Your task to perform on an android device: open app "Spotify" (install if not already installed) and go to login screen Image 0: 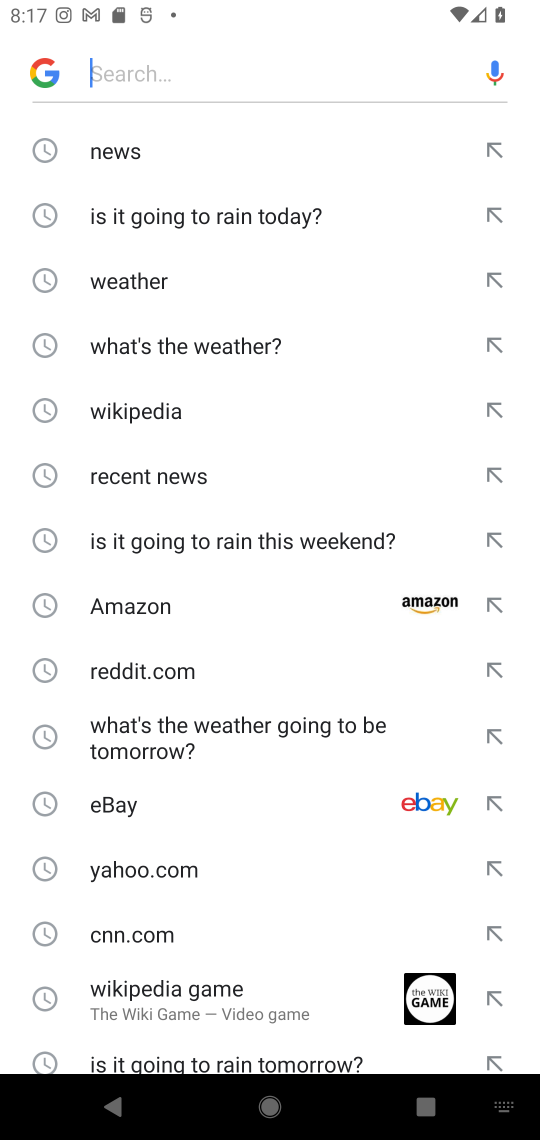
Step 0: press home button
Your task to perform on an android device: open app "Spotify" (install if not already installed) and go to login screen Image 1: 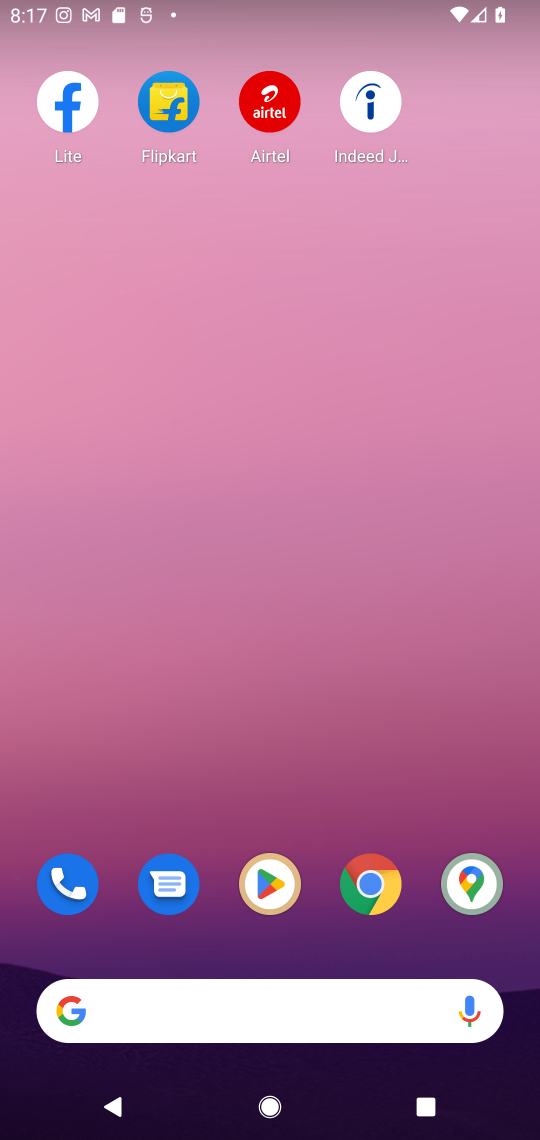
Step 1: drag from (159, 1003) to (238, 100)
Your task to perform on an android device: open app "Spotify" (install if not already installed) and go to login screen Image 2: 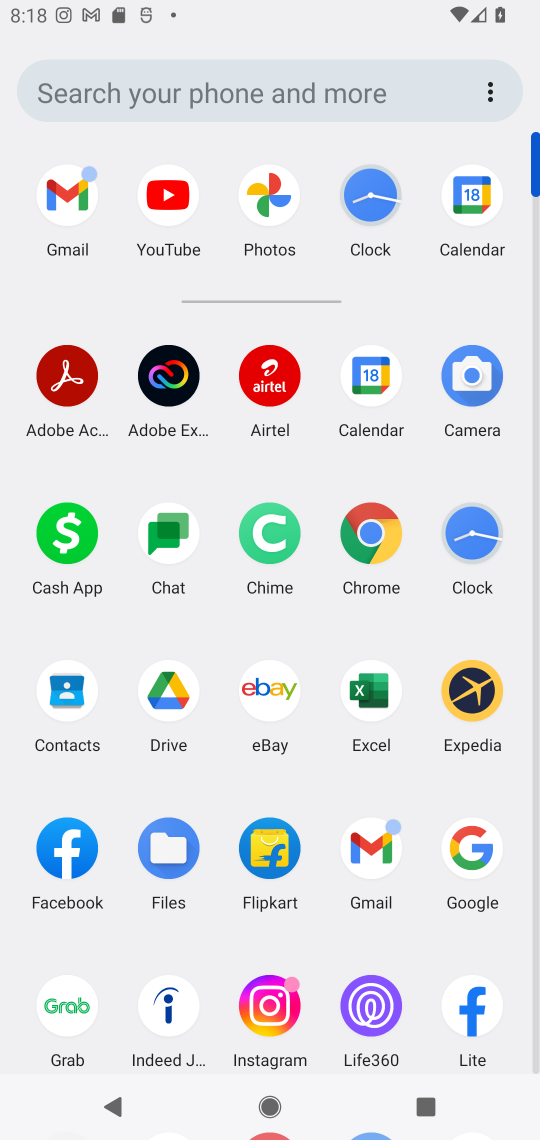
Step 2: drag from (199, 792) to (222, 266)
Your task to perform on an android device: open app "Spotify" (install if not already installed) and go to login screen Image 3: 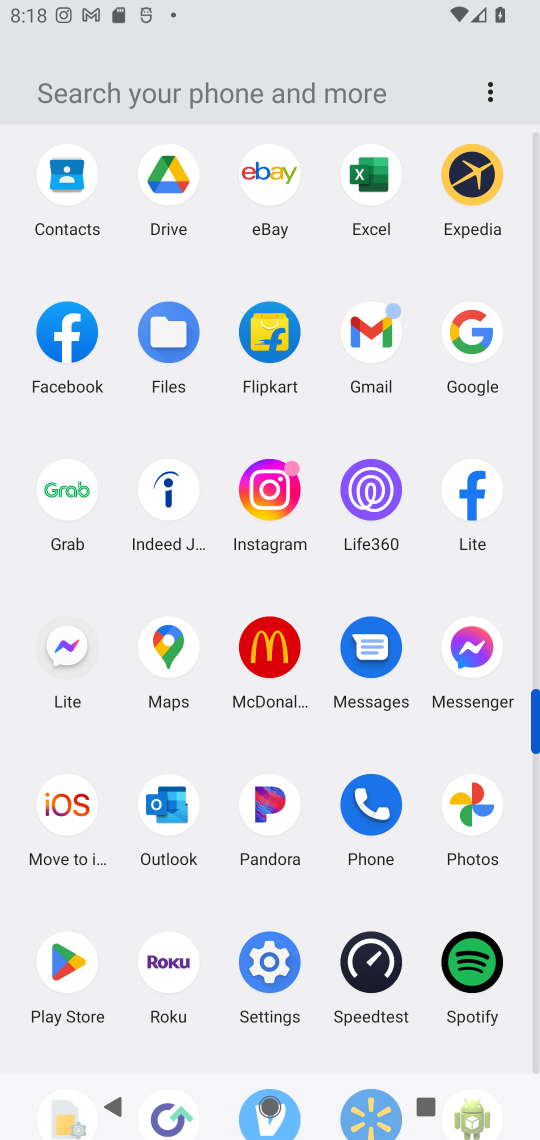
Step 3: click (73, 963)
Your task to perform on an android device: open app "Spotify" (install if not already installed) and go to login screen Image 4: 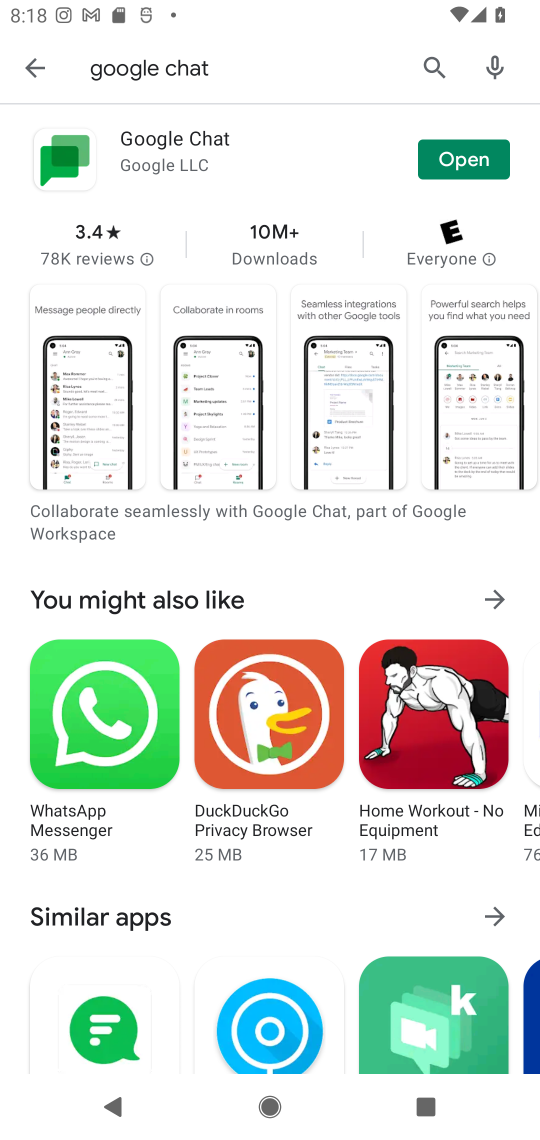
Step 4: press back button
Your task to perform on an android device: open app "Spotify" (install if not already installed) and go to login screen Image 5: 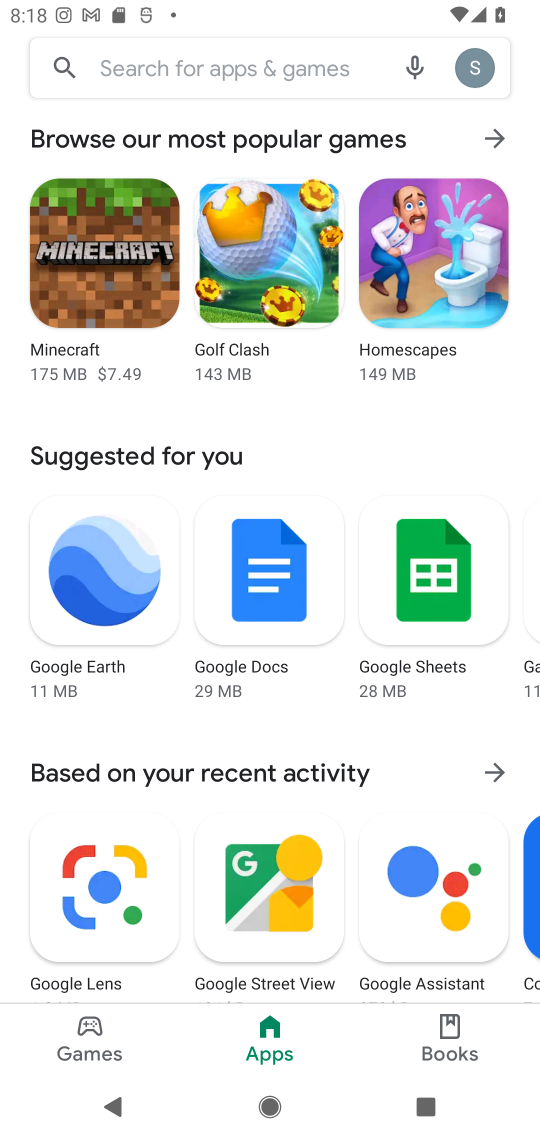
Step 5: click (312, 75)
Your task to perform on an android device: open app "Spotify" (install if not already installed) and go to login screen Image 6: 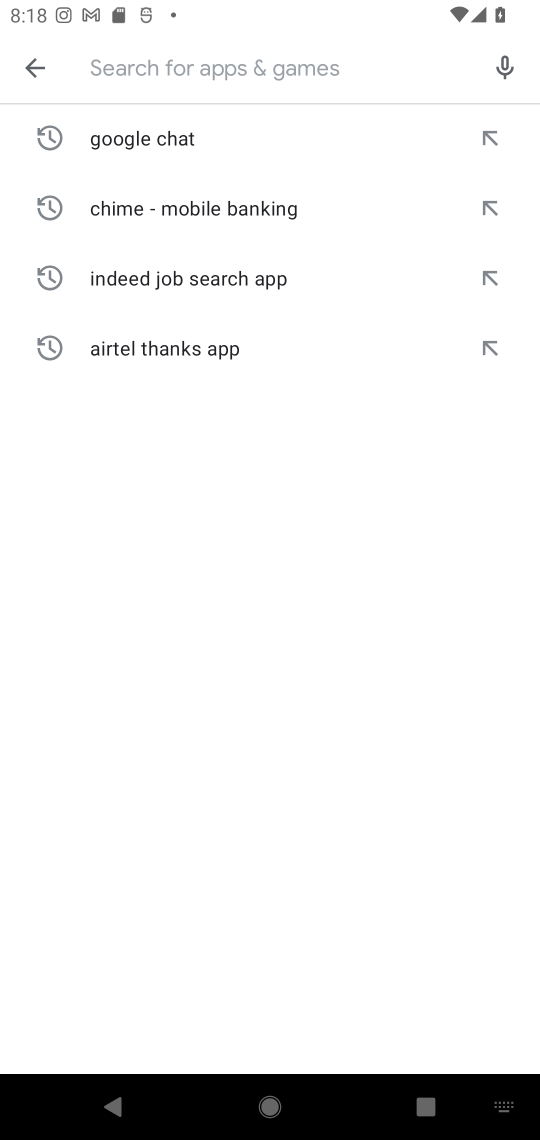
Step 6: type "Spotify"
Your task to perform on an android device: open app "Spotify" (install if not already installed) and go to login screen Image 7: 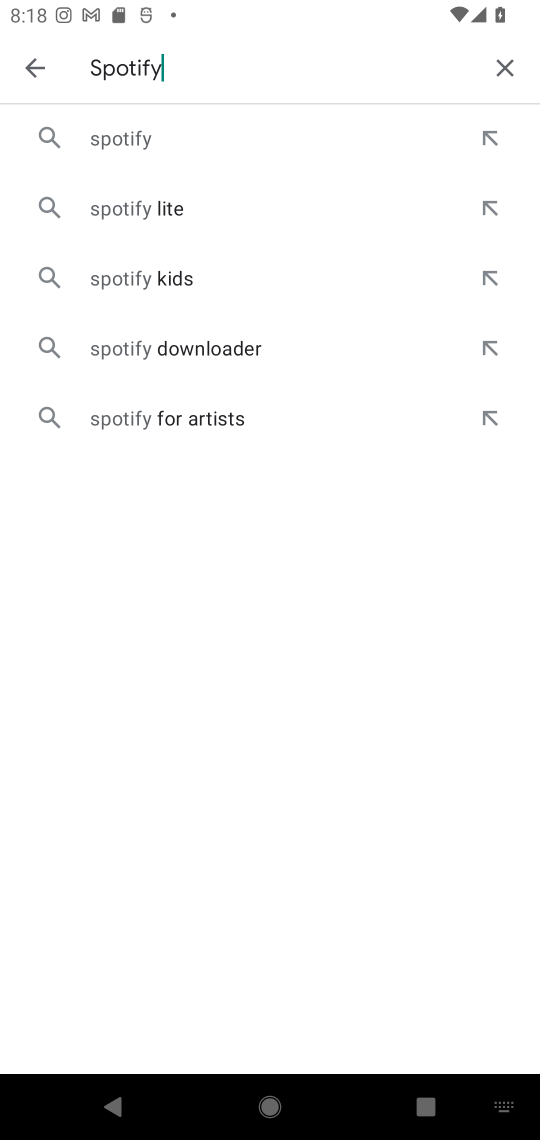
Step 7: click (114, 135)
Your task to perform on an android device: open app "Spotify" (install if not already installed) and go to login screen Image 8: 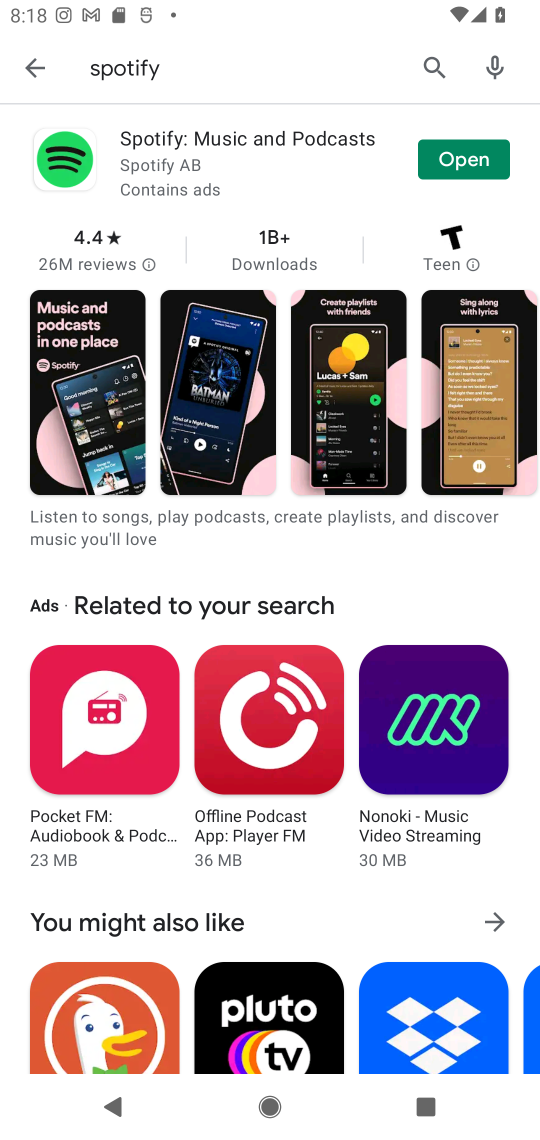
Step 8: click (469, 164)
Your task to perform on an android device: open app "Spotify" (install if not already installed) and go to login screen Image 9: 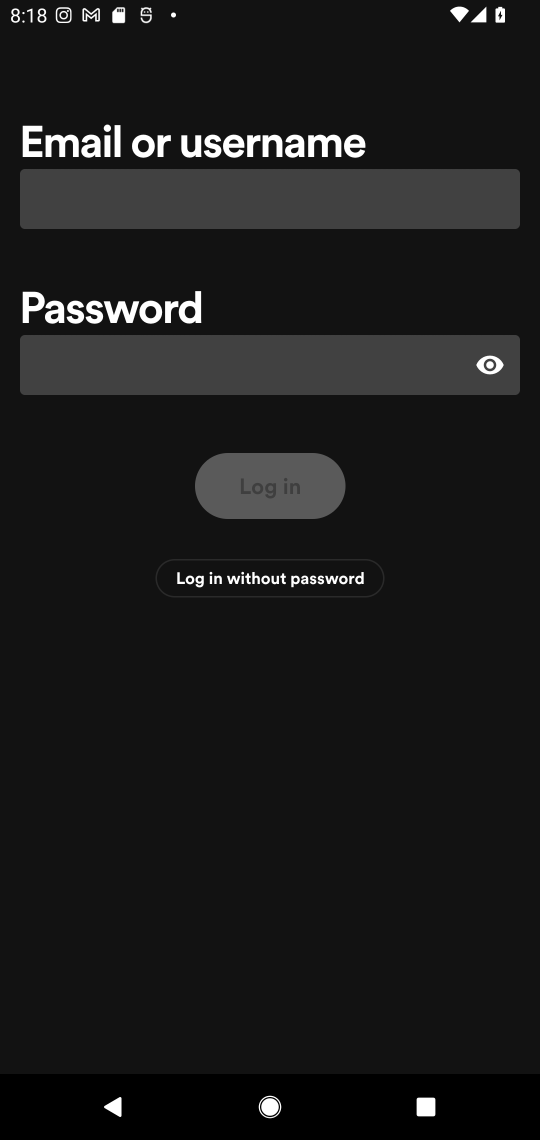
Step 9: task complete